Your task to perform on an android device: open a new tab in the chrome app Image 0: 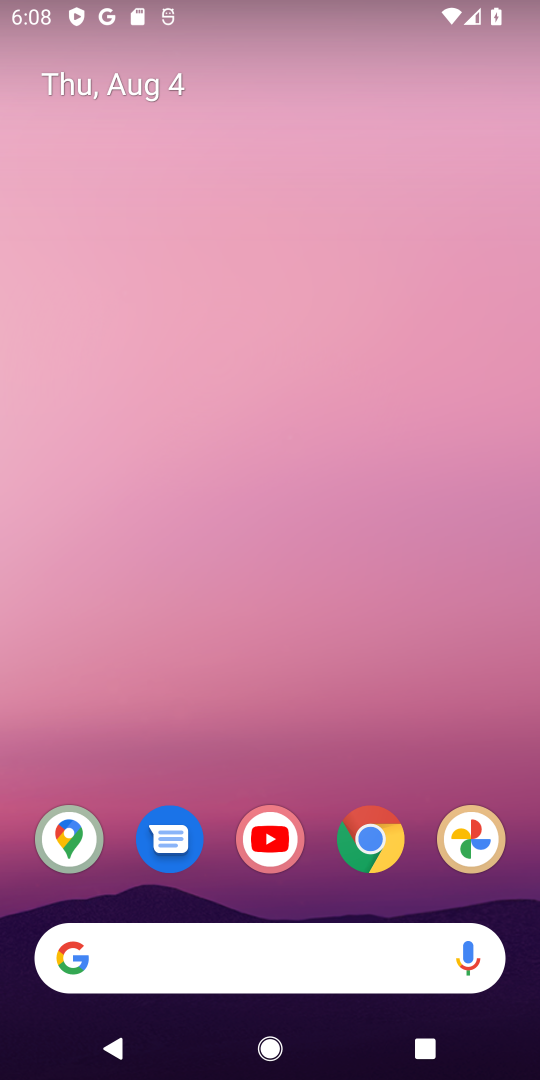
Step 0: drag from (453, 752) to (502, 113)
Your task to perform on an android device: open a new tab in the chrome app Image 1: 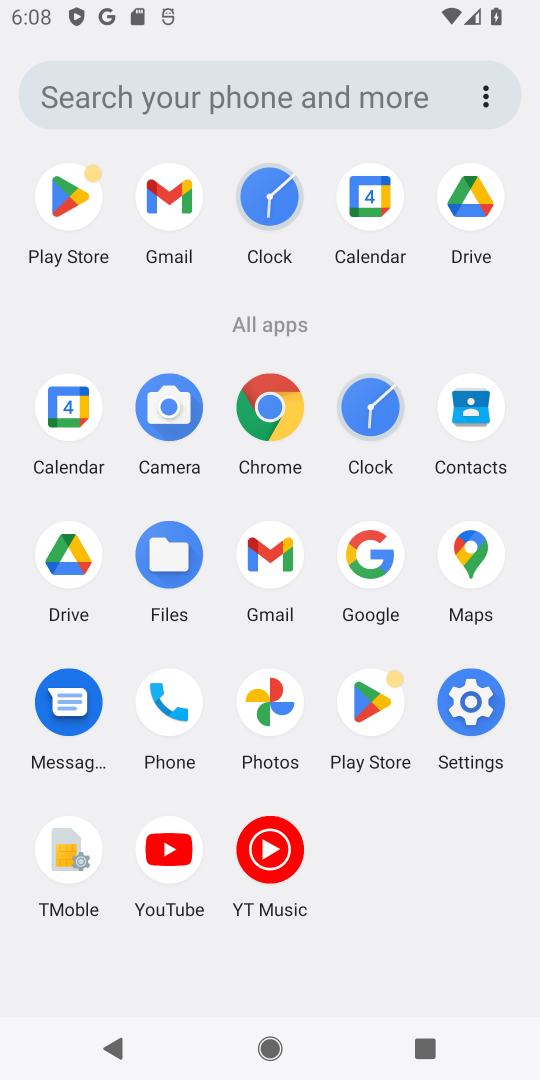
Step 1: click (265, 397)
Your task to perform on an android device: open a new tab in the chrome app Image 2: 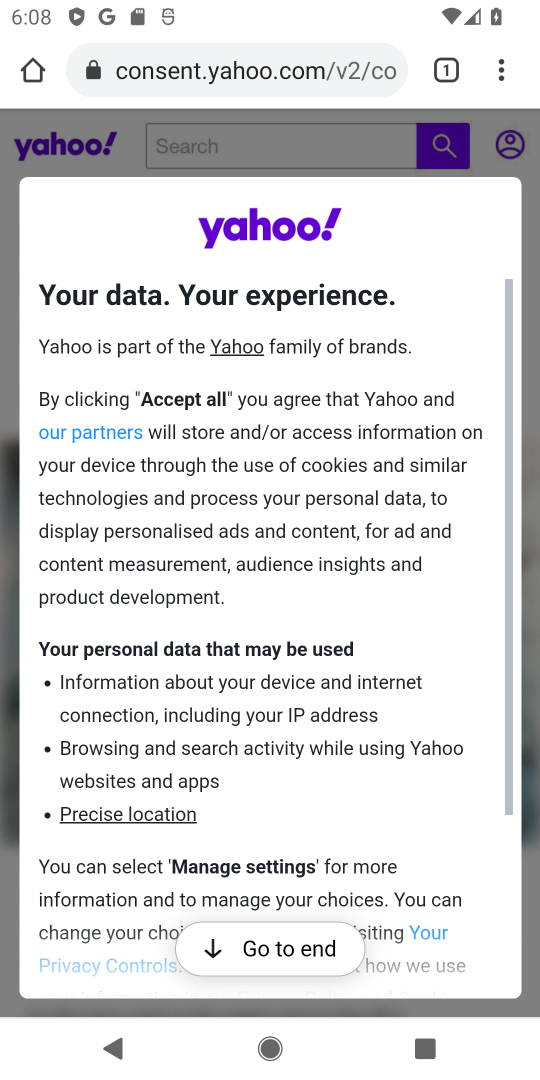
Step 2: task complete